Your task to perform on an android device: Open Google Chrome Image 0: 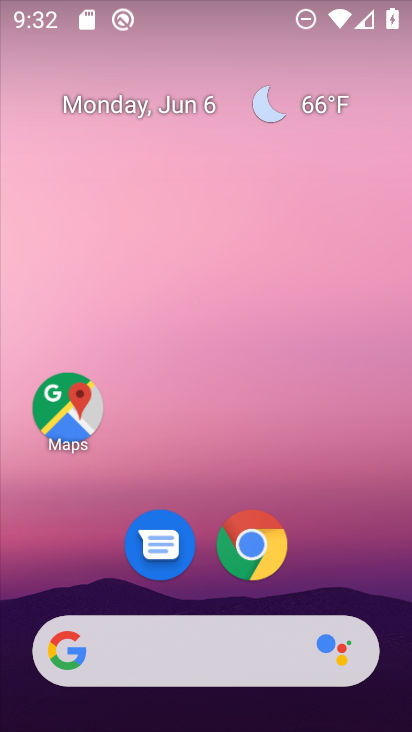
Step 0: drag from (210, 555) to (226, 175)
Your task to perform on an android device: Open Google Chrome Image 1: 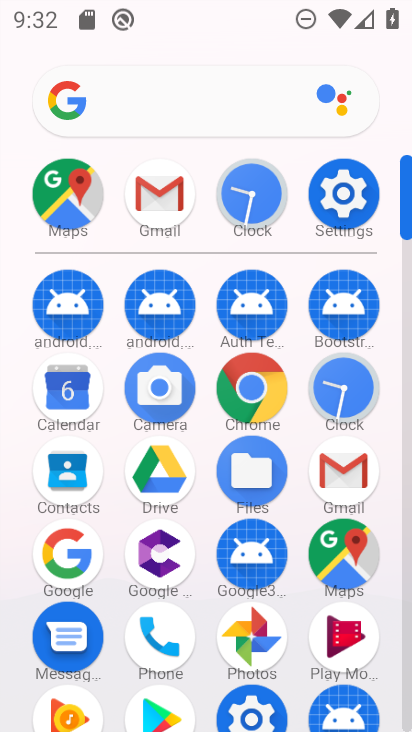
Step 1: click (254, 379)
Your task to perform on an android device: Open Google Chrome Image 2: 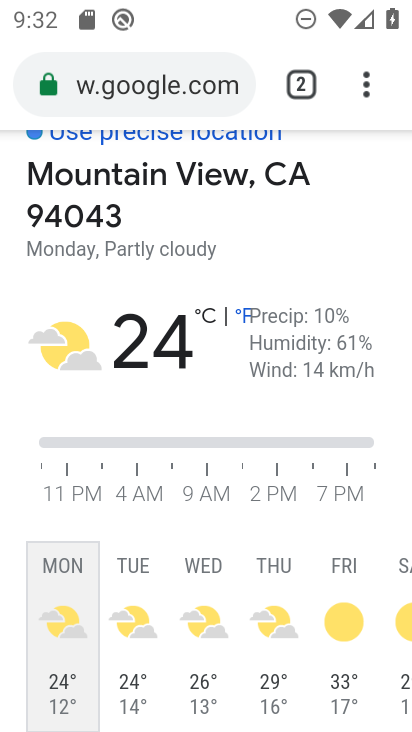
Step 2: task complete